Your task to perform on an android device: Go to Maps Image 0: 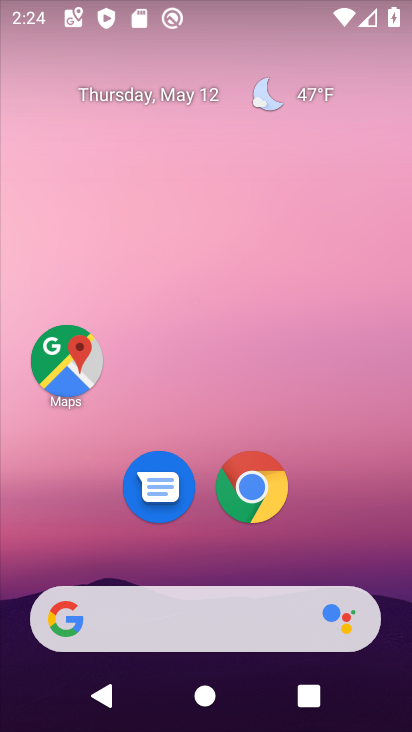
Step 0: click (76, 354)
Your task to perform on an android device: Go to Maps Image 1: 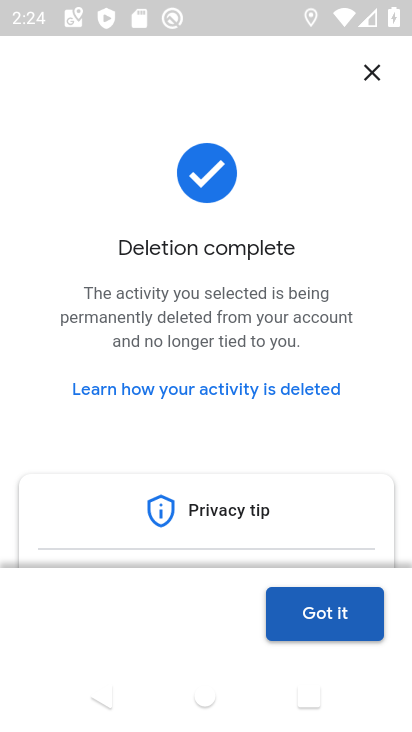
Step 1: click (291, 625)
Your task to perform on an android device: Go to Maps Image 2: 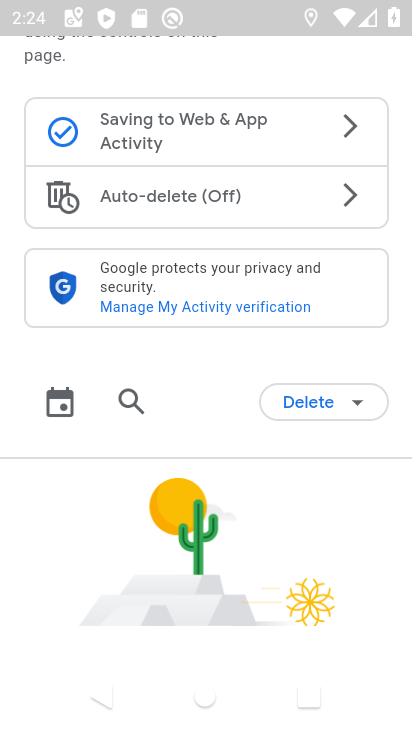
Step 2: task complete